Your task to perform on an android device: open app "Viber Messenger" (install if not already installed), go to login, and select forgot password Image 0: 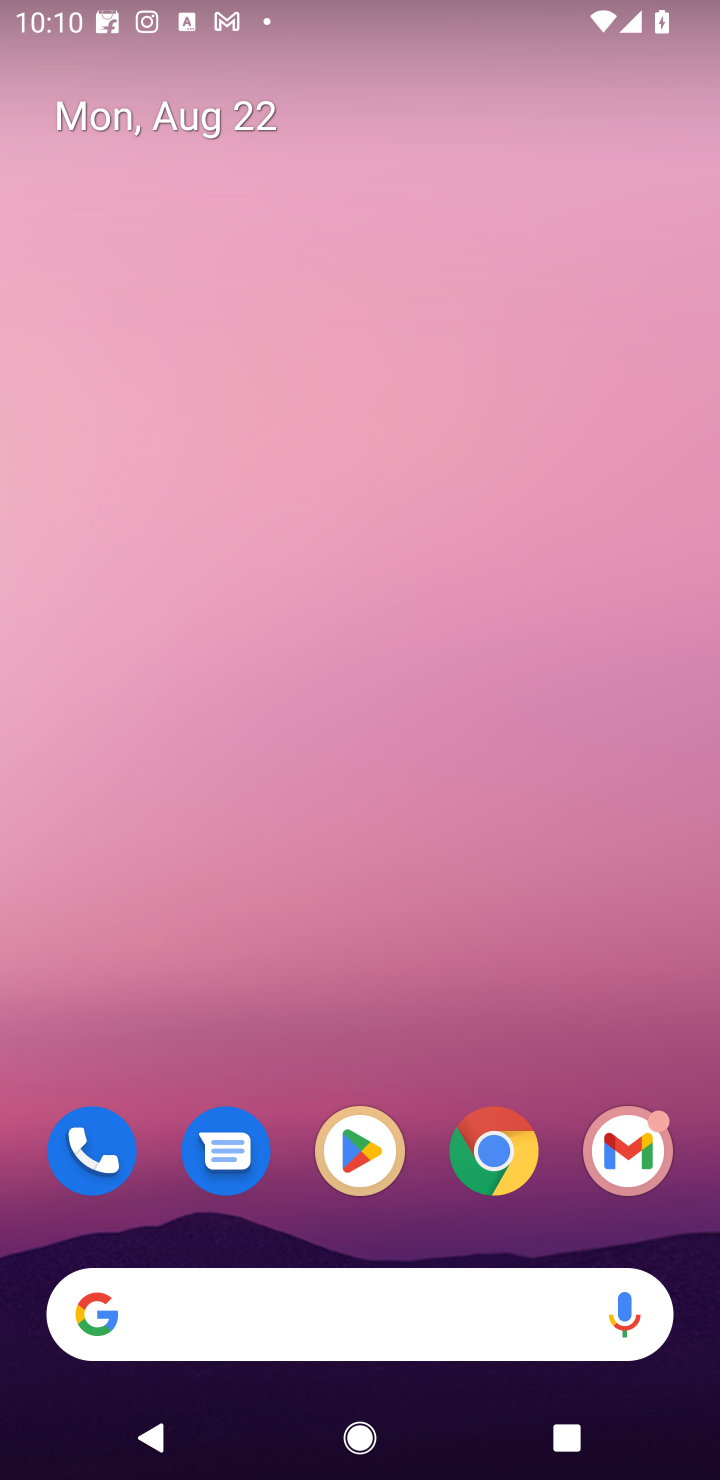
Step 0: press home button
Your task to perform on an android device: open app "Viber Messenger" (install if not already installed), go to login, and select forgot password Image 1: 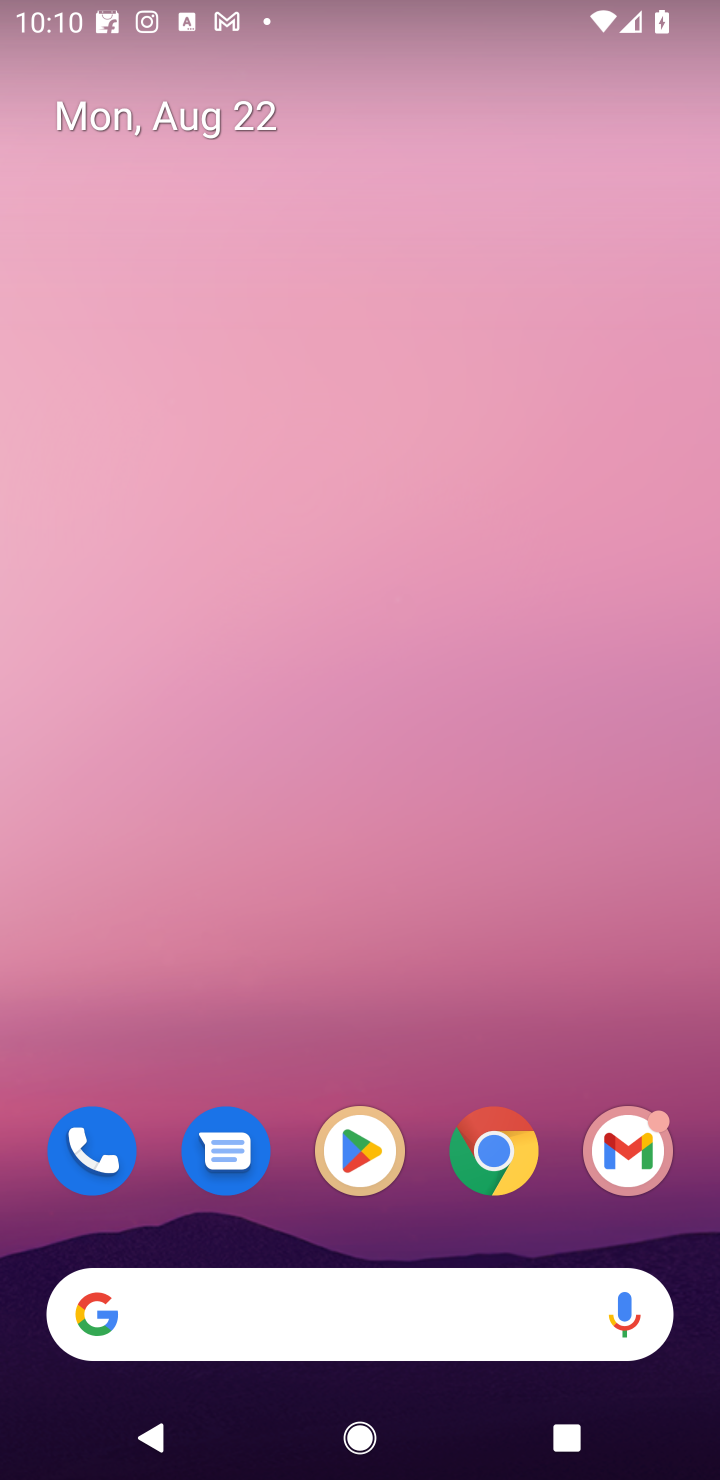
Step 1: click (356, 1161)
Your task to perform on an android device: open app "Viber Messenger" (install if not already installed), go to login, and select forgot password Image 2: 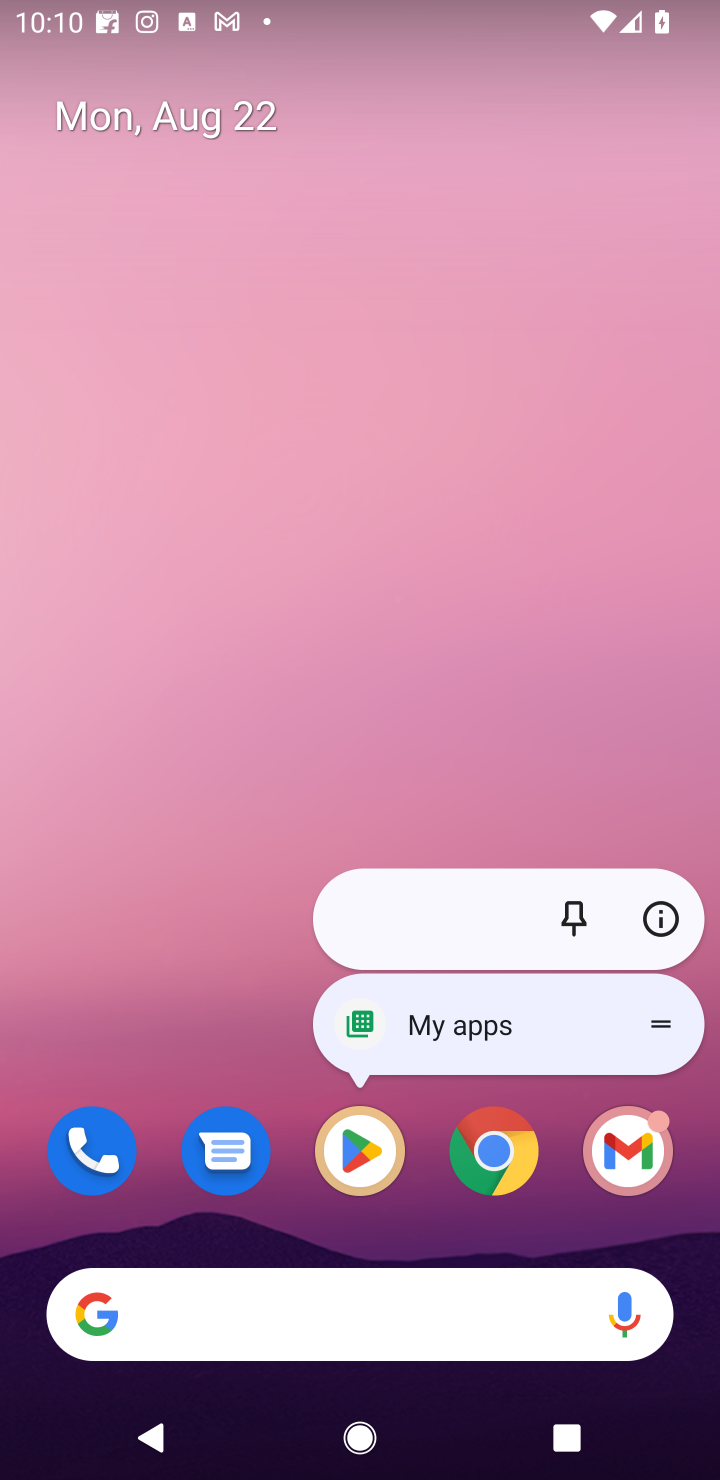
Step 2: click (356, 1166)
Your task to perform on an android device: open app "Viber Messenger" (install if not already installed), go to login, and select forgot password Image 3: 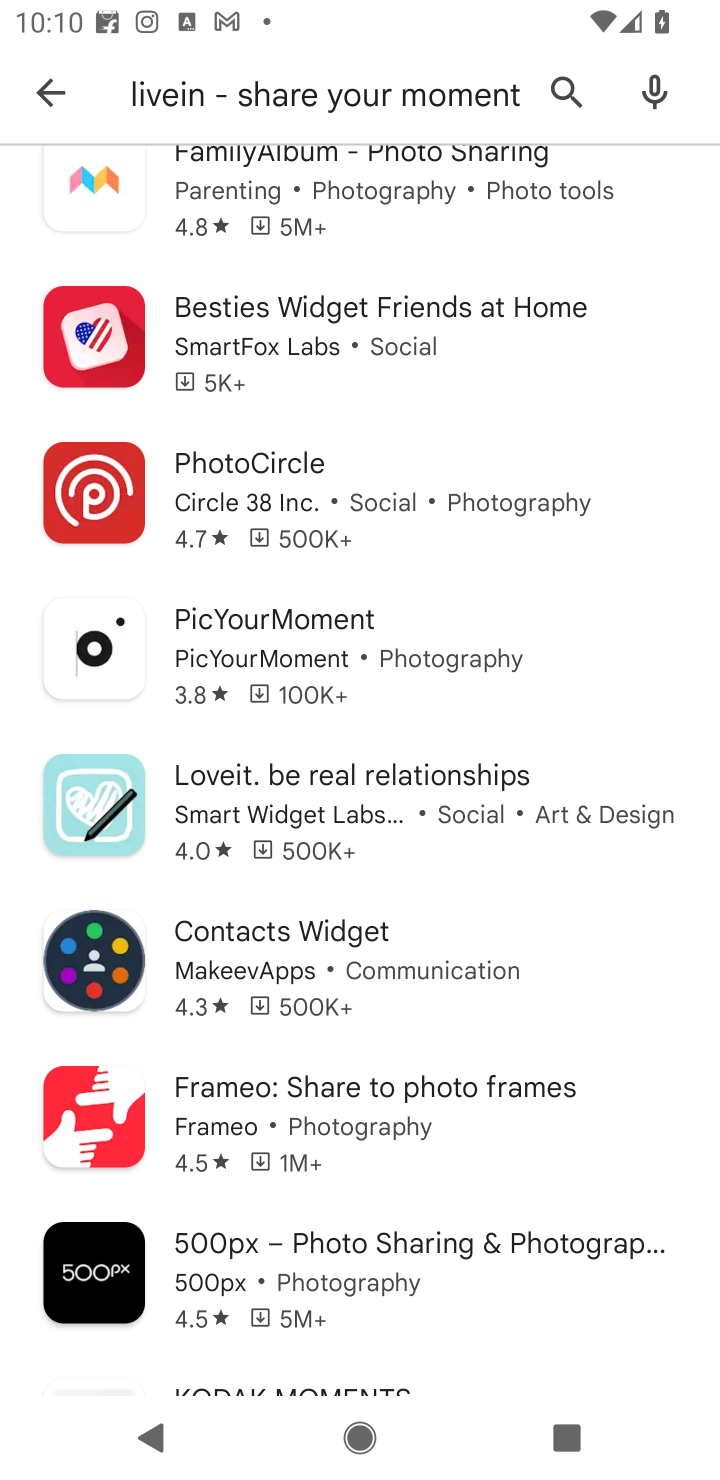
Step 3: click (356, 1162)
Your task to perform on an android device: open app "Viber Messenger" (install if not already installed), go to login, and select forgot password Image 4: 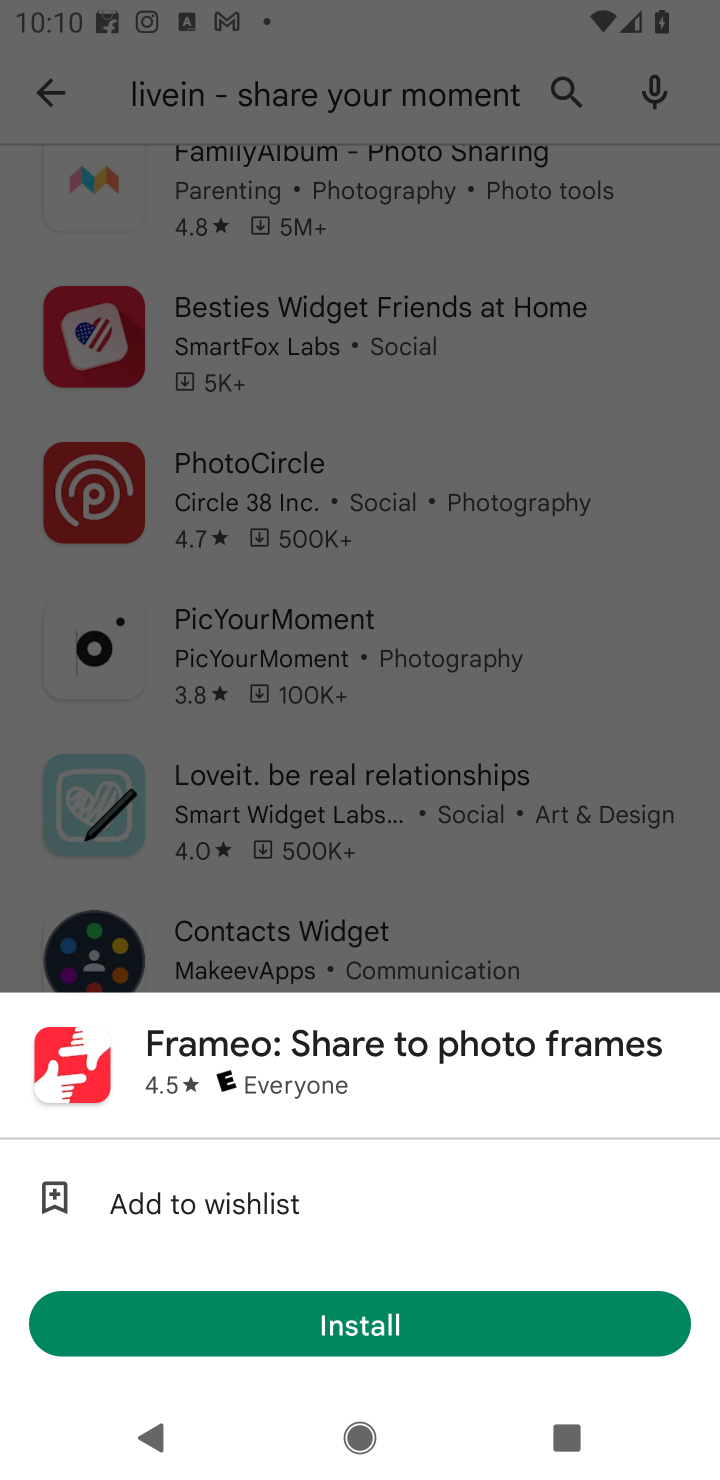
Step 4: click (570, 93)
Your task to perform on an android device: open app "Viber Messenger" (install if not already installed), go to login, and select forgot password Image 5: 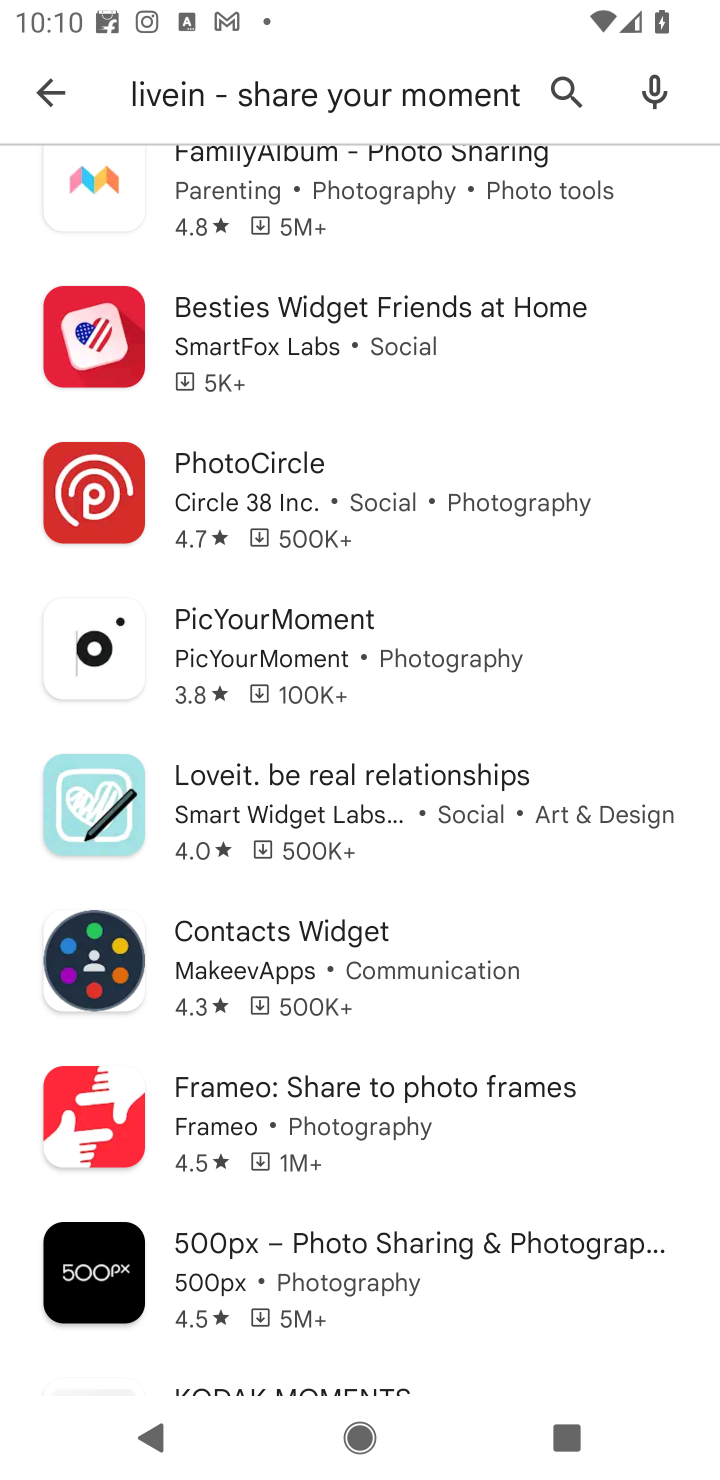
Step 5: click (570, 96)
Your task to perform on an android device: open app "Viber Messenger" (install if not already installed), go to login, and select forgot password Image 6: 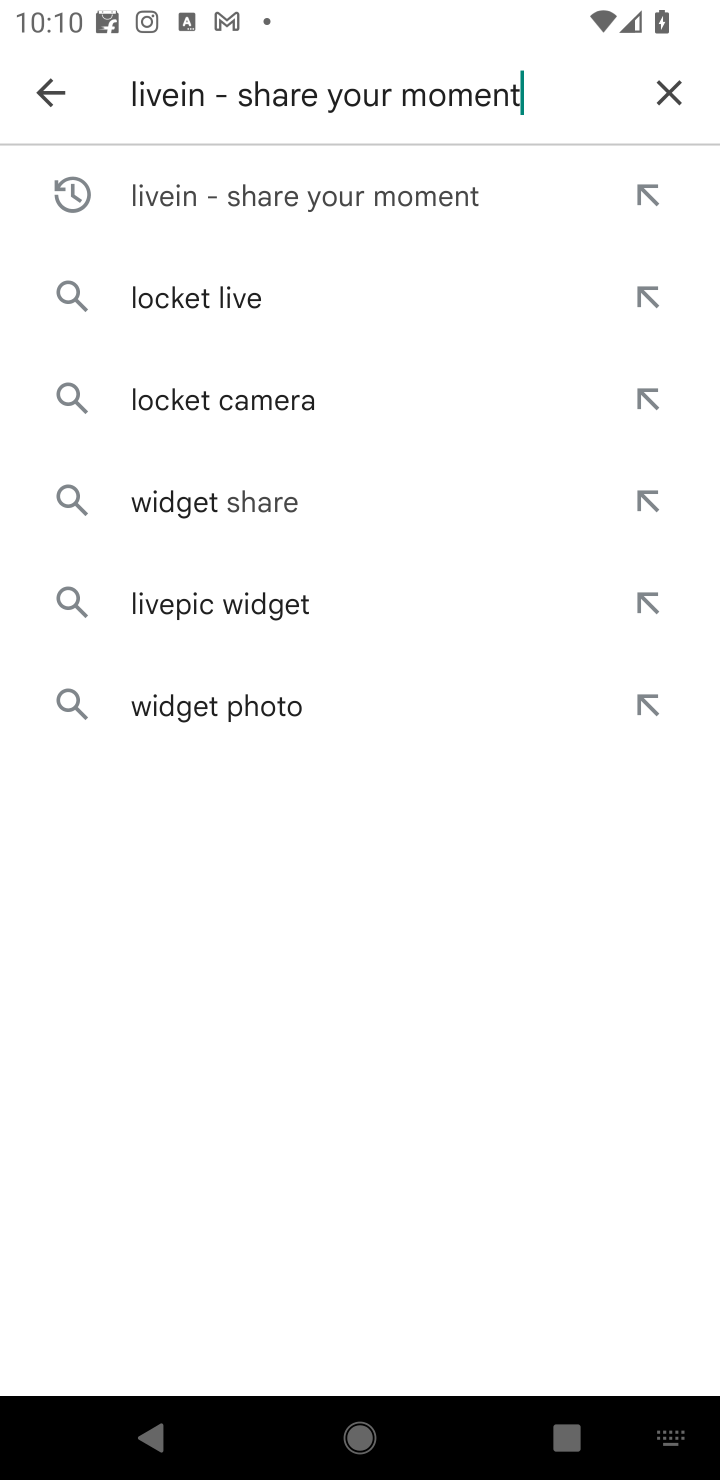
Step 6: click (670, 87)
Your task to perform on an android device: open app "Viber Messenger" (install if not already installed), go to login, and select forgot password Image 7: 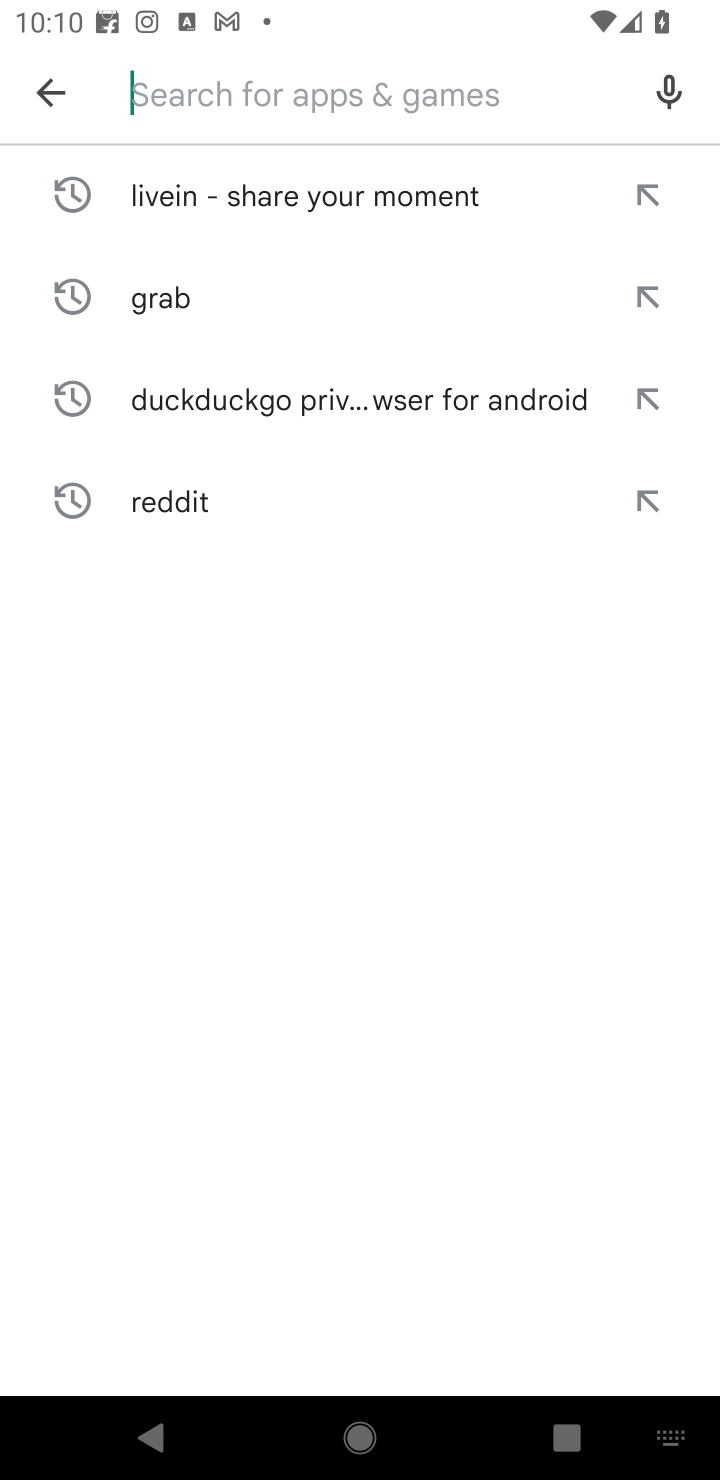
Step 7: type "Viber Messenger"
Your task to perform on an android device: open app "Viber Messenger" (install if not already installed), go to login, and select forgot password Image 8: 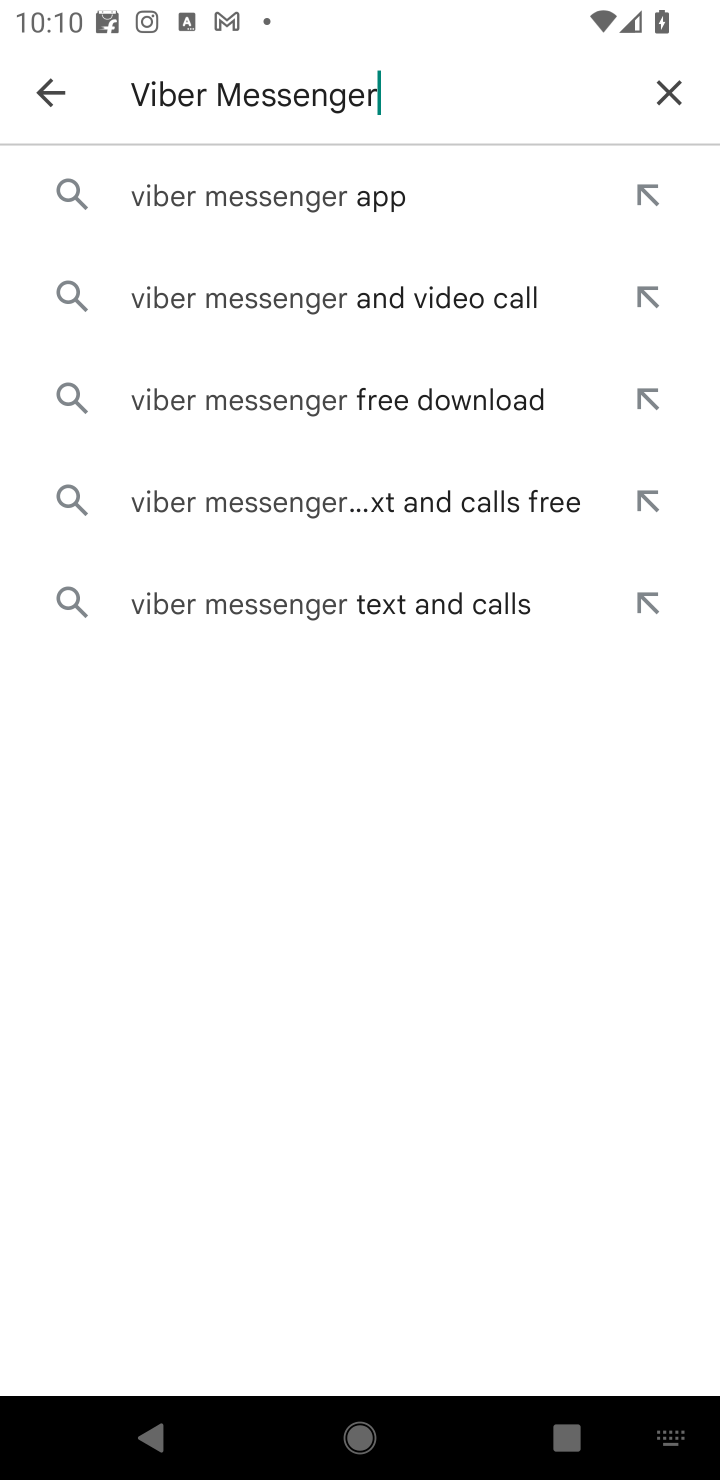
Step 8: click (298, 205)
Your task to perform on an android device: open app "Viber Messenger" (install if not already installed), go to login, and select forgot password Image 9: 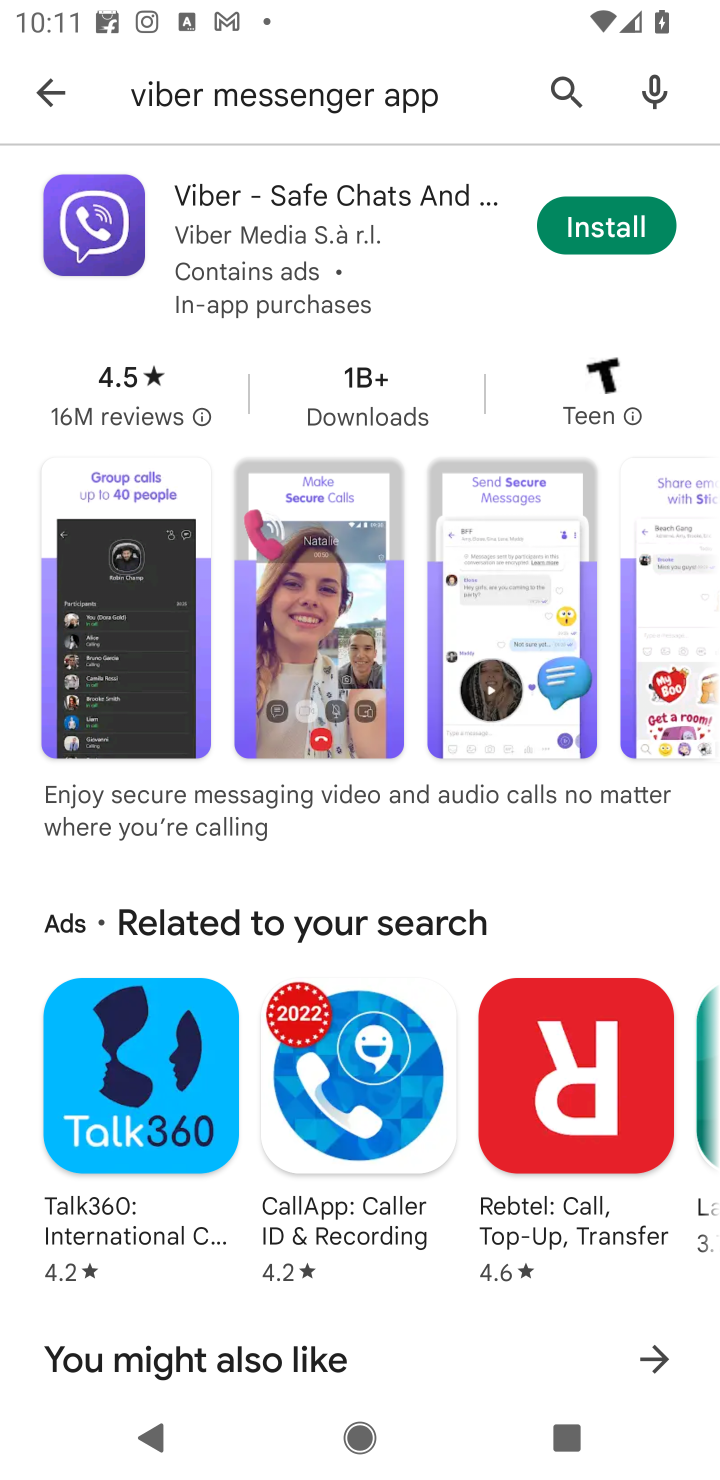
Step 9: click (597, 228)
Your task to perform on an android device: open app "Viber Messenger" (install if not already installed), go to login, and select forgot password Image 10: 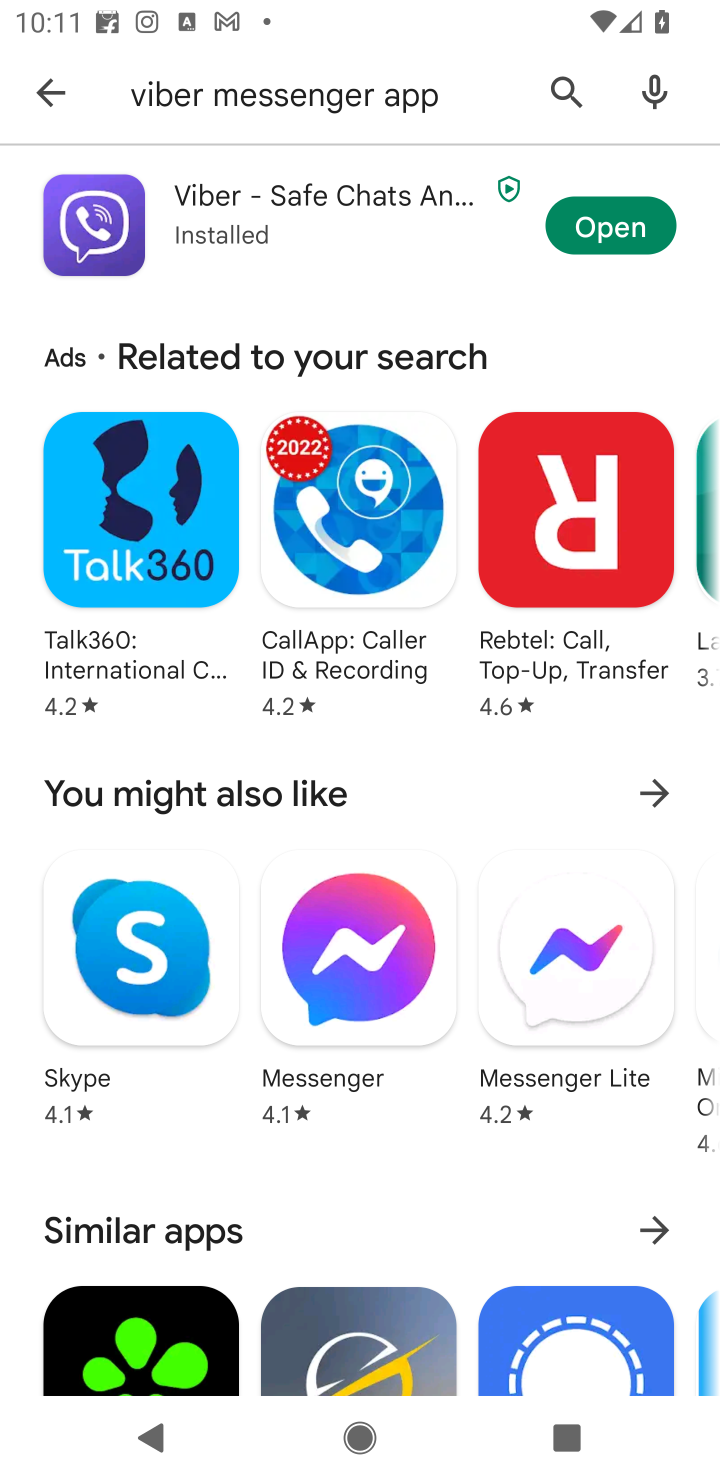
Step 10: click (599, 218)
Your task to perform on an android device: open app "Viber Messenger" (install if not already installed), go to login, and select forgot password Image 11: 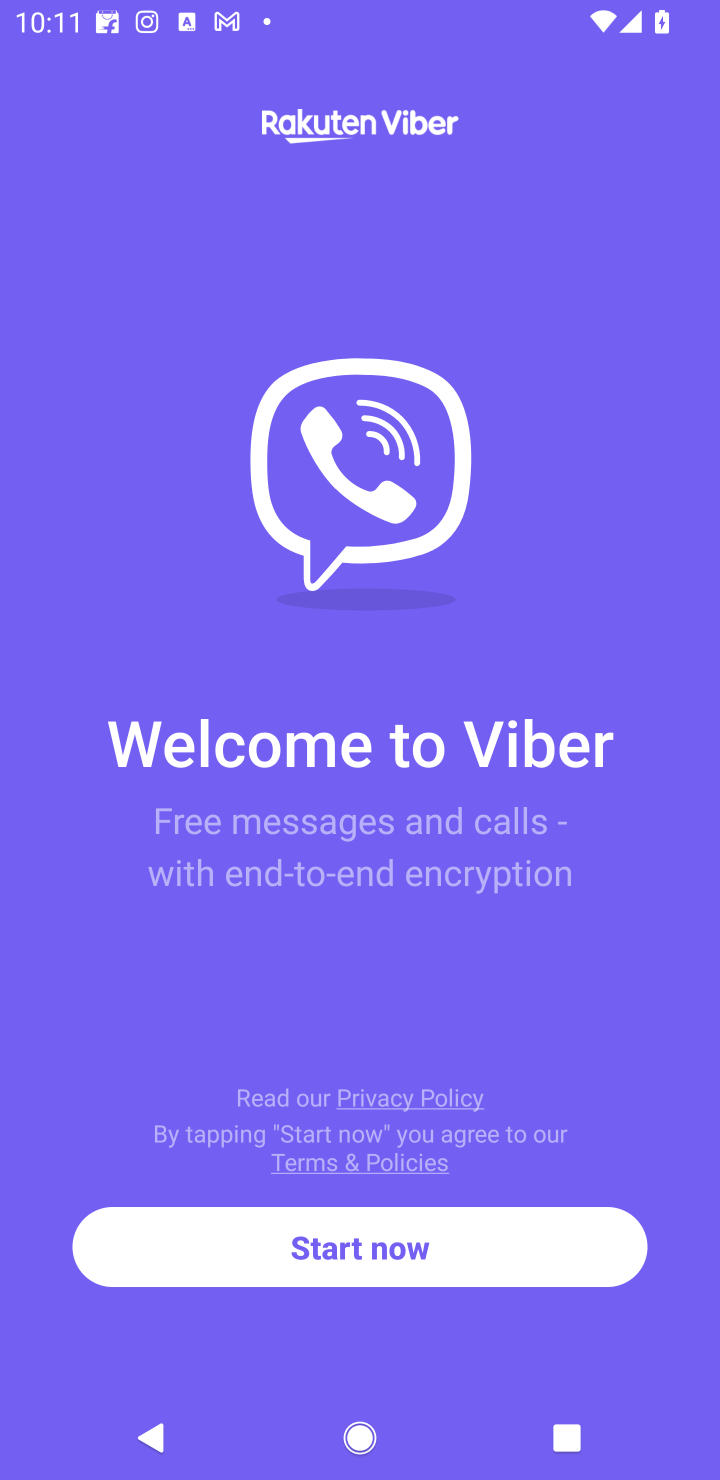
Step 11: click (383, 1261)
Your task to perform on an android device: open app "Viber Messenger" (install if not already installed), go to login, and select forgot password Image 12: 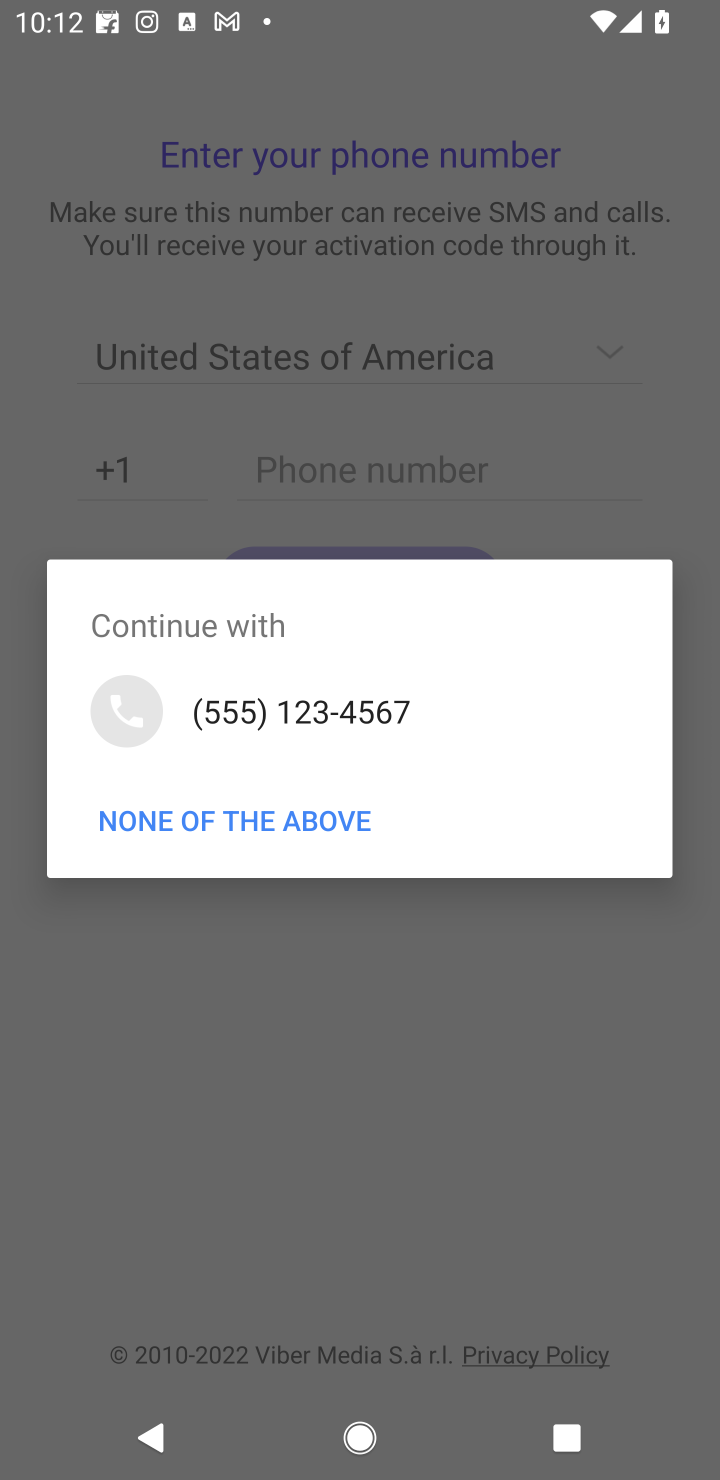
Step 12: click (303, 821)
Your task to perform on an android device: open app "Viber Messenger" (install if not already installed), go to login, and select forgot password Image 13: 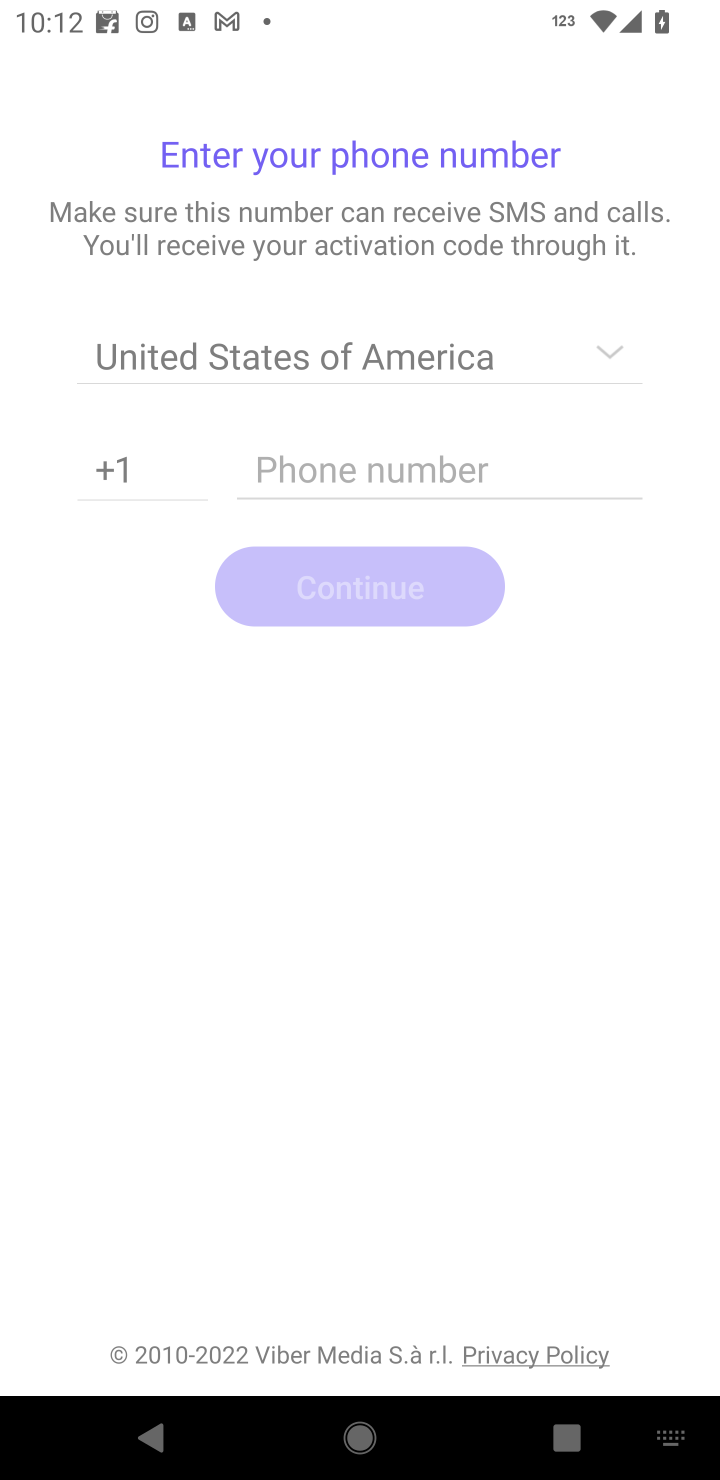
Step 13: task complete